Your task to perform on an android device: Search for a dining table on Crate & Barrel Image 0: 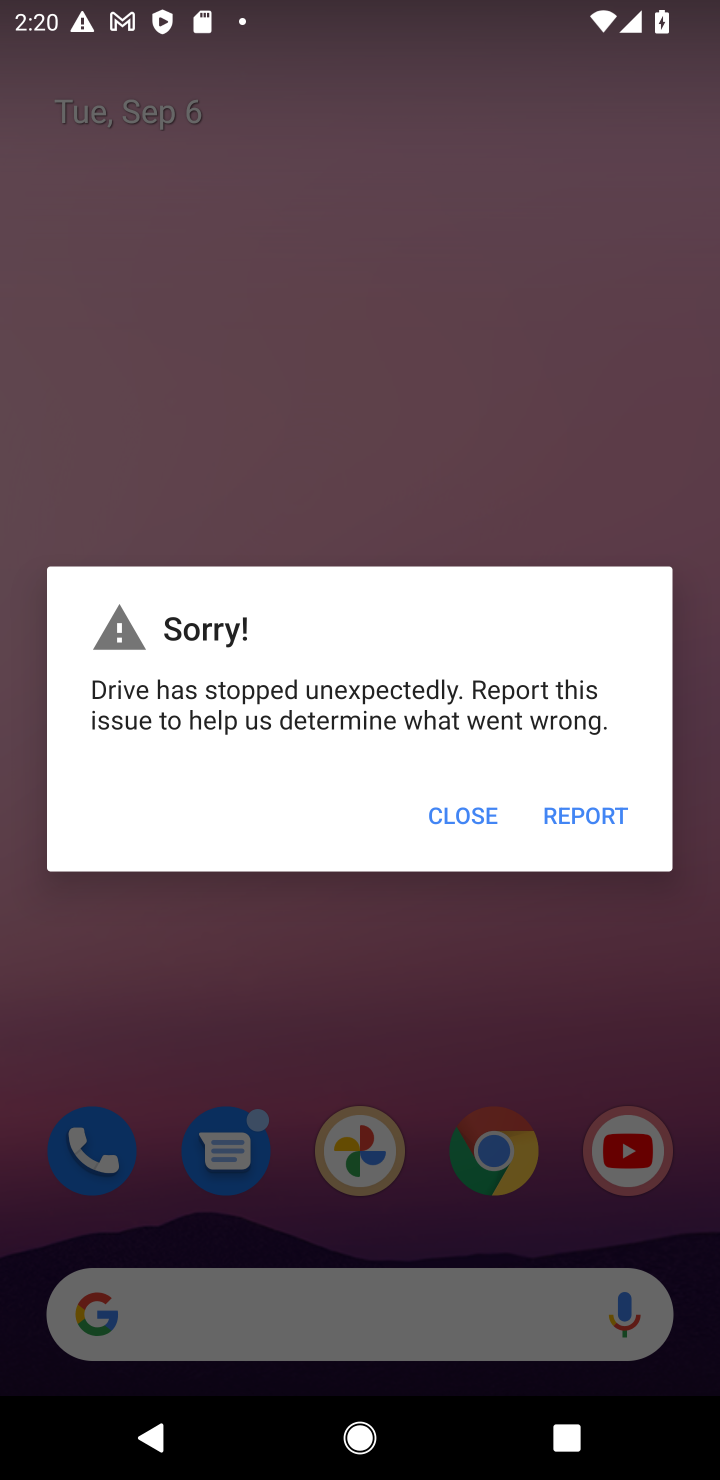
Step 0: click (463, 820)
Your task to perform on an android device: Search for a dining table on Crate & Barrel Image 1: 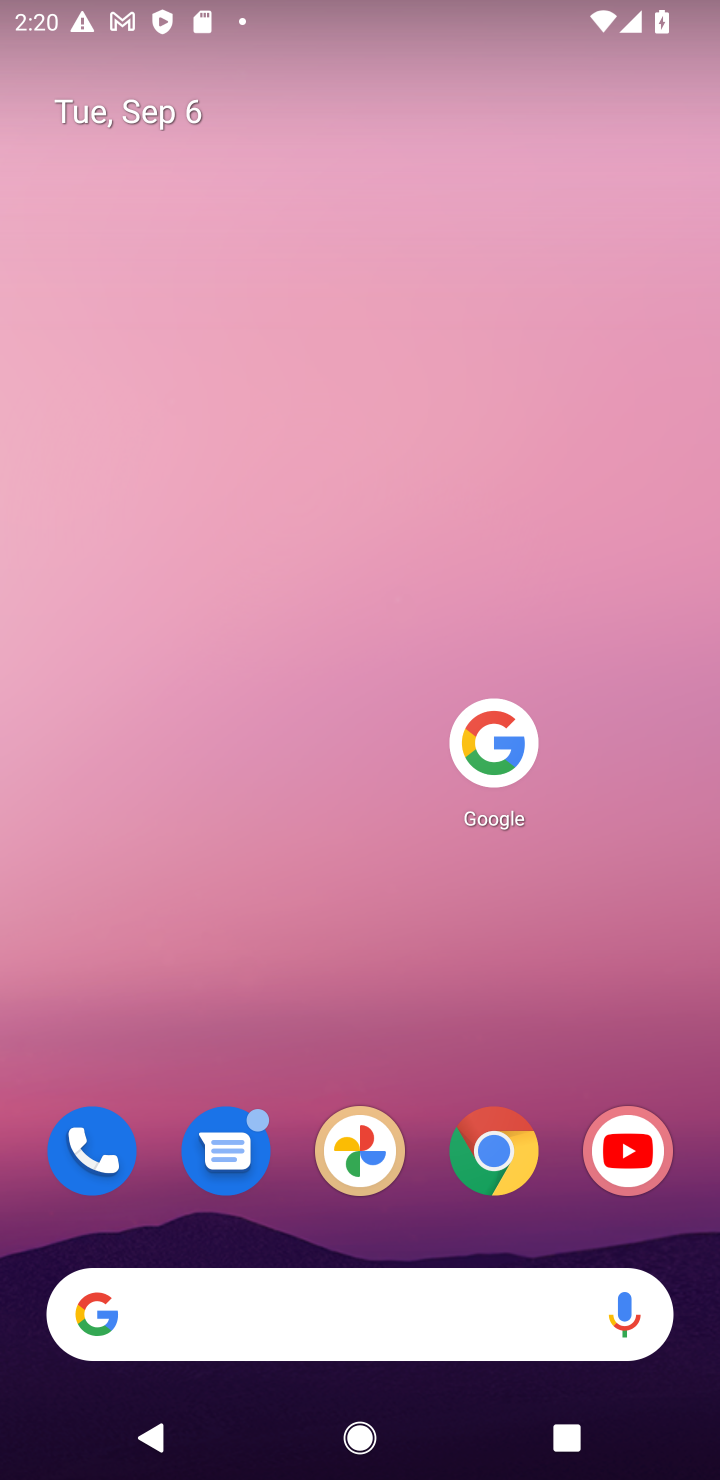
Step 1: click (513, 735)
Your task to perform on an android device: Search for a dining table on Crate & Barrel Image 2: 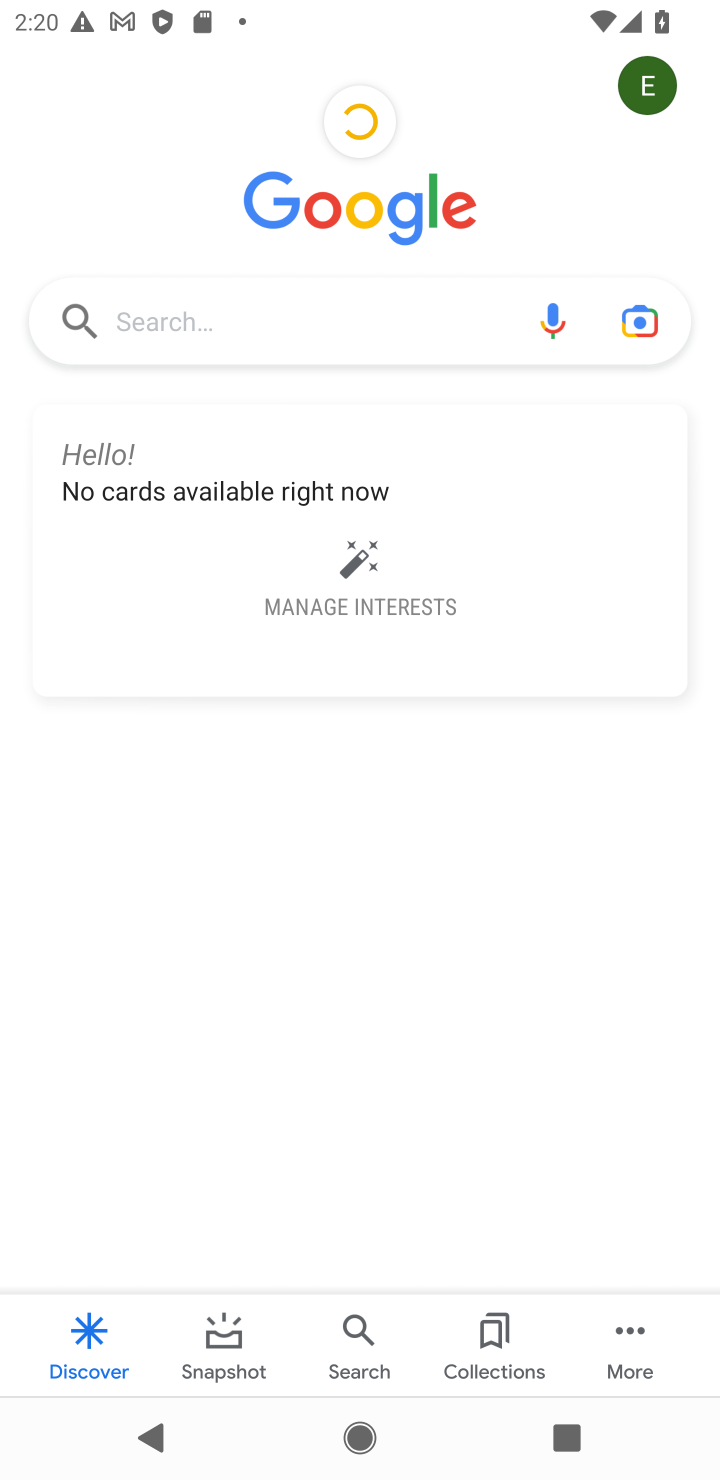
Step 2: click (305, 320)
Your task to perform on an android device: Search for a dining table on Crate & Barrel Image 3: 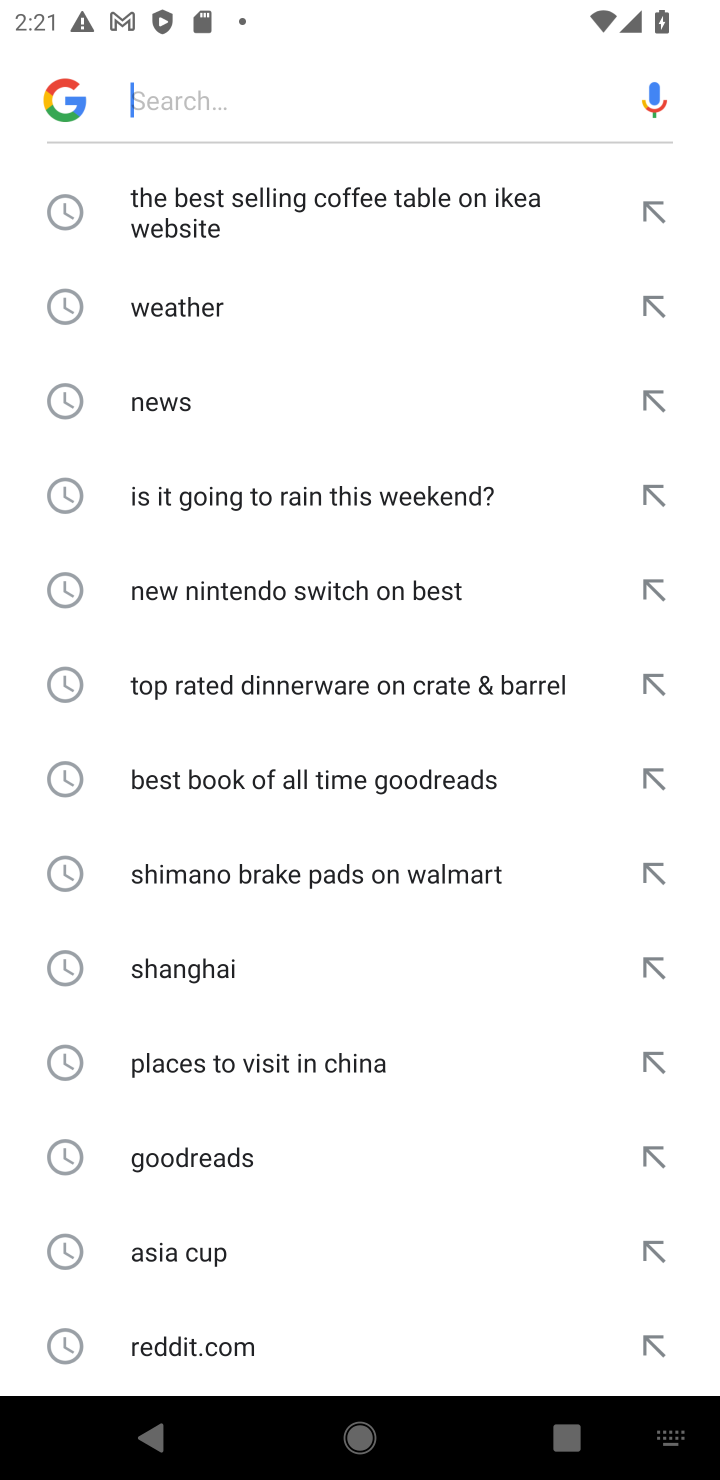
Step 3: click (166, 61)
Your task to perform on an android device: Search for a dining table on Crate & Barrel Image 4: 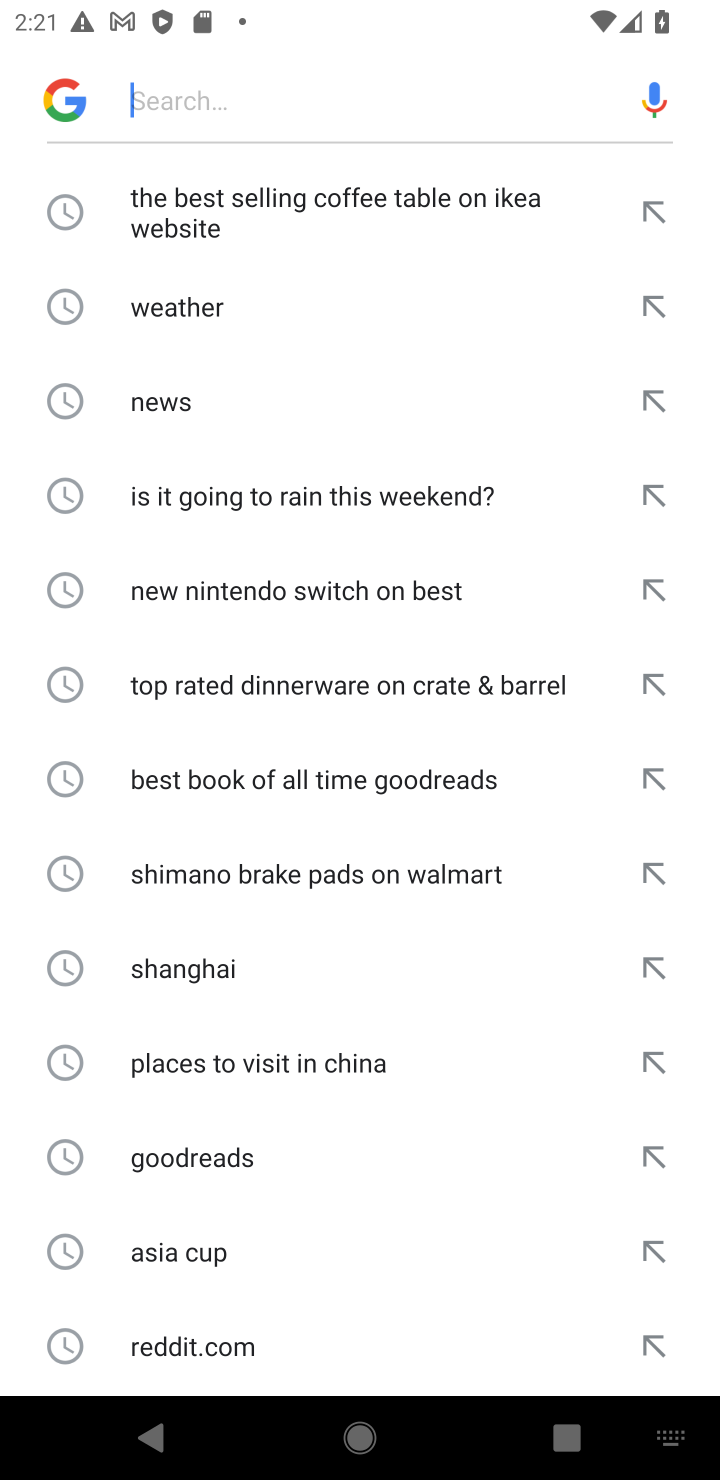
Step 4: type " a dining table on Crate & Barrel "
Your task to perform on an android device: Search for a dining table on Crate & Barrel Image 5: 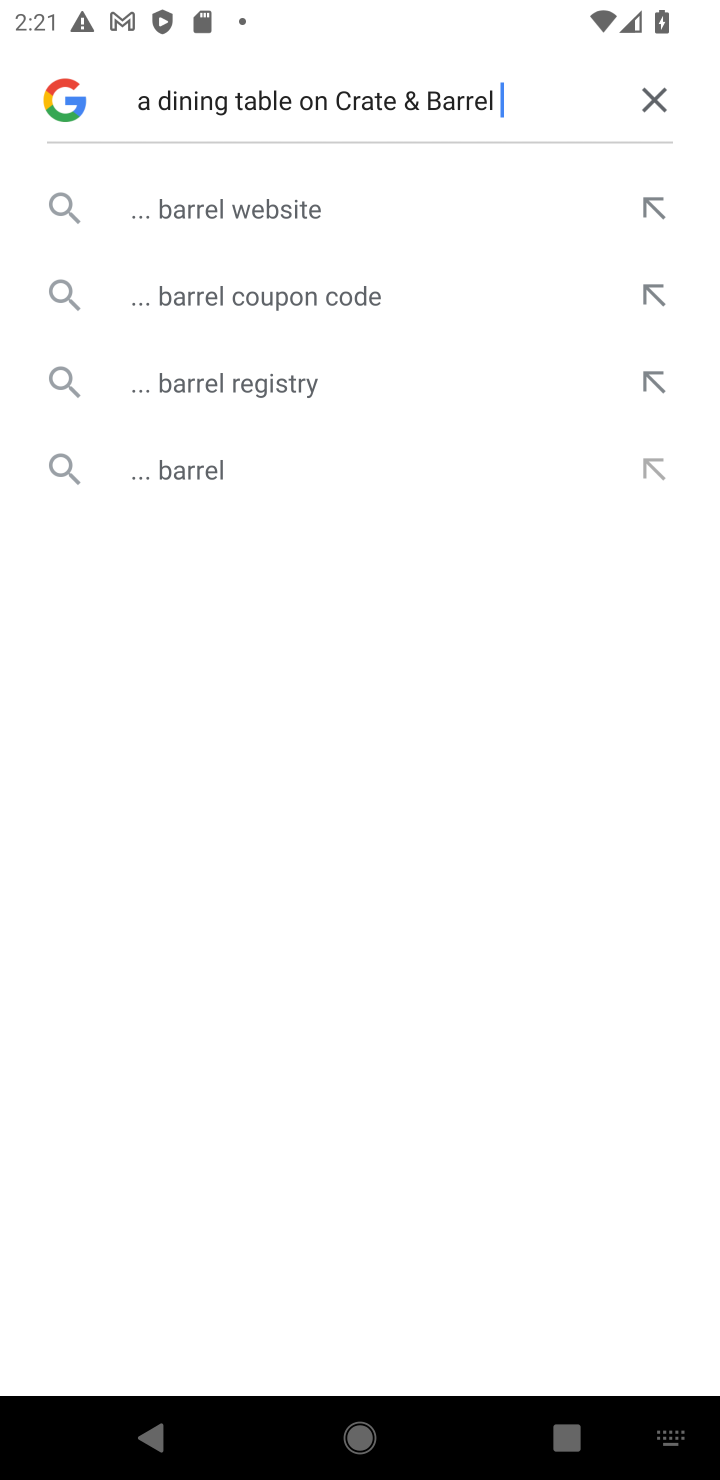
Step 5: click (257, 205)
Your task to perform on an android device: Search for a dining table on Crate & Barrel Image 6: 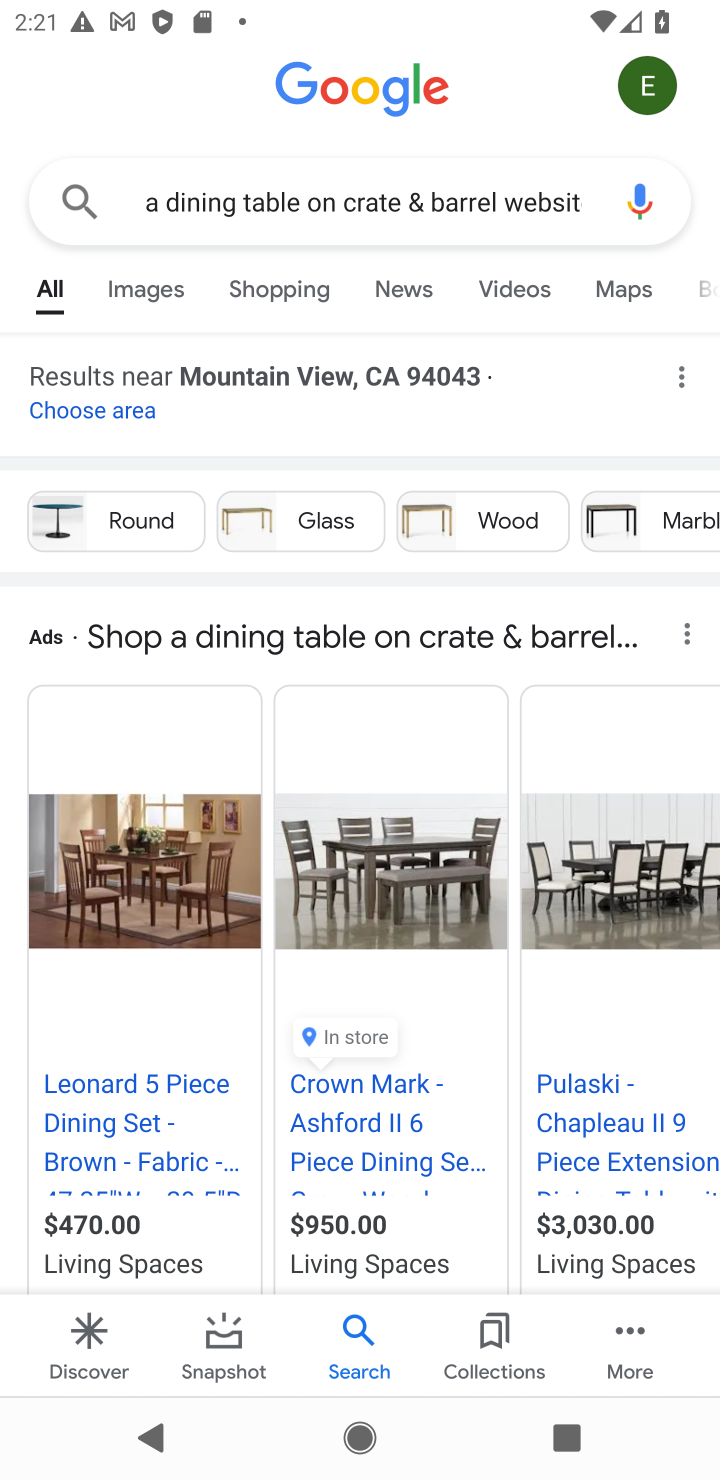
Step 6: task complete